Your task to perform on an android device: toggle notifications settings in the gmail app Image 0: 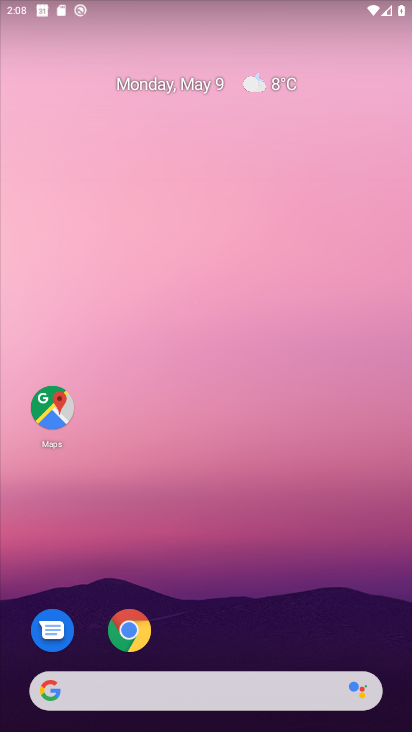
Step 0: drag from (214, 642) to (255, 172)
Your task to perform on an android device: toggle notifications settings in the gmail app Image 1: 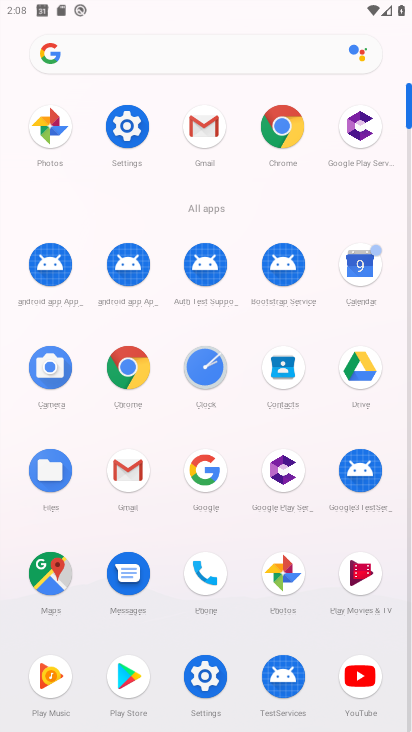
Step 1: click (135, 485)
Your task to perform on an android device: toggle notifications settings in the gmail app Image 2: 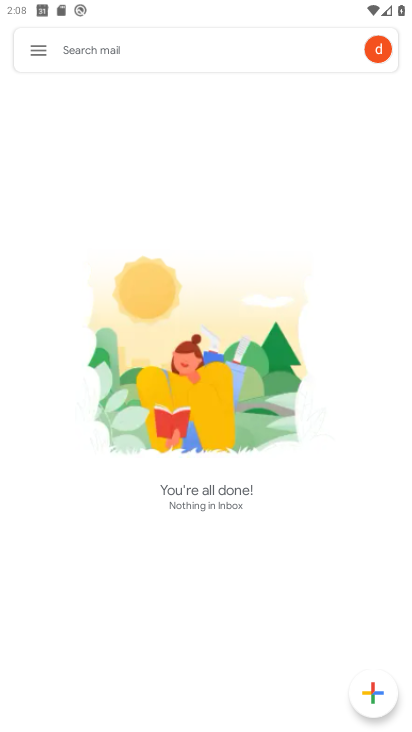
Step 2: click (49, 54)
Your task to perform on an android device: toggle notifications settings in the gmail app Image 3: 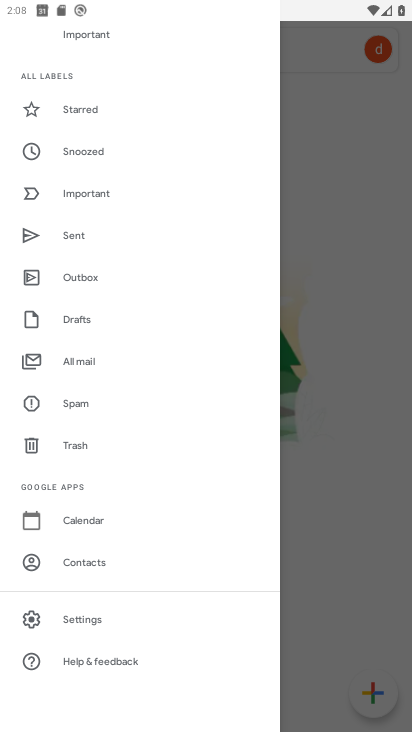
Step 3: click (103, 636)
Your task to perform on an android device: toggle notifications settings in the gmail app Image 4: 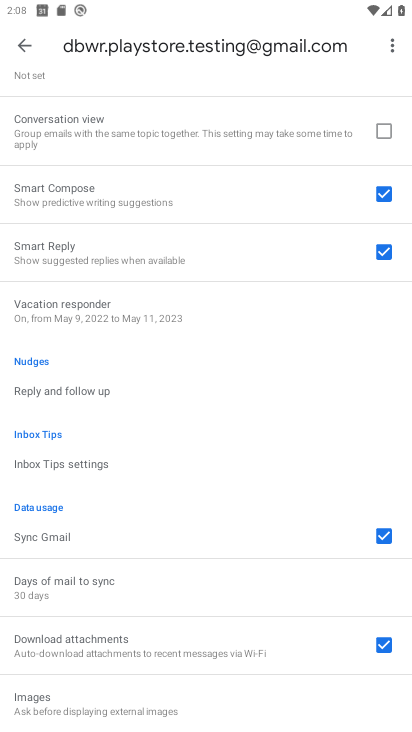
Step 4: click (23, 46)
Your task to perform on an android device: toggle notifications settings in the gmail app Image 5: 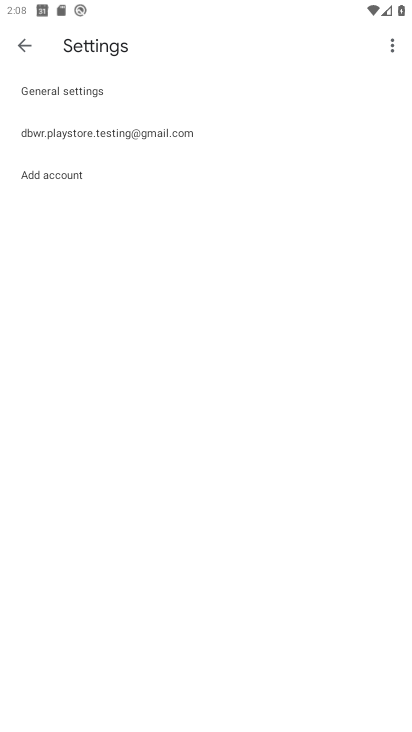
Step 5: click (133, 97)
Your task to perform on an android device: toggle notifications settings in the gmail app Image 6: 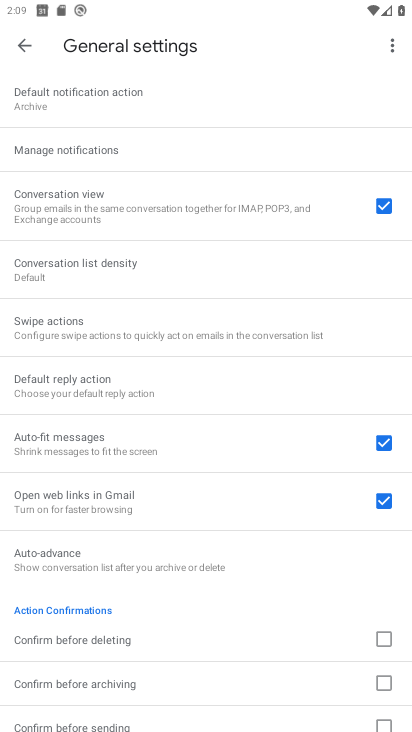
Step 6: click (150, 149)
Your task to perform on an android device: toggle notifications settings in the gmail app Image 7: 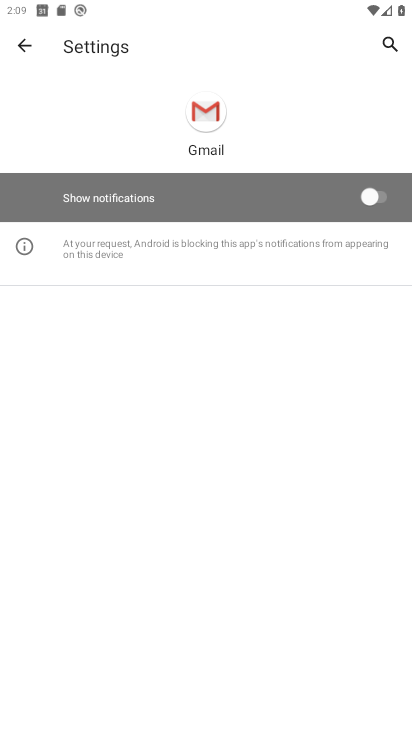
Step 7: click (391, 197)
Your task to perform on an android device: toggle notifications settings in the gmail app Image 8: 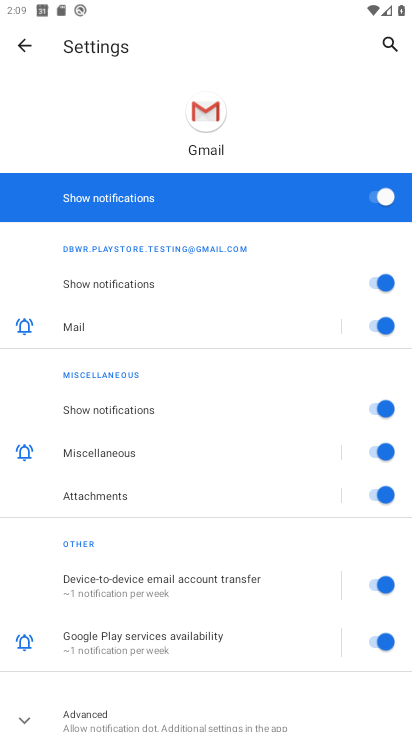
Step 8: task complete